Your task to perform on an android device: delete a single message in the gmail app Image 0: 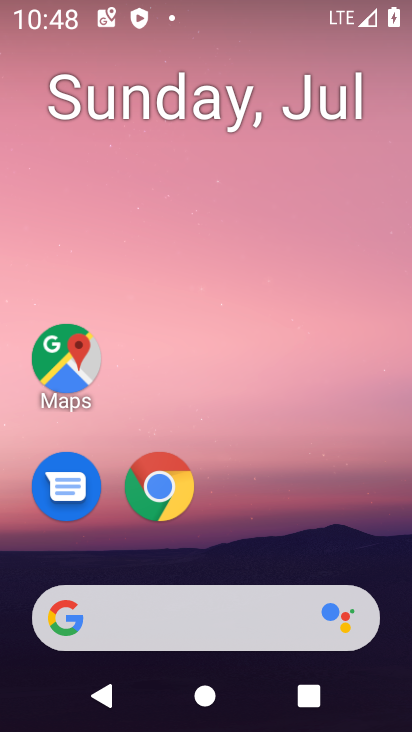
Step 0: press home button
Your task to perform on an android device: delete a single message in the gmail app Image 1: 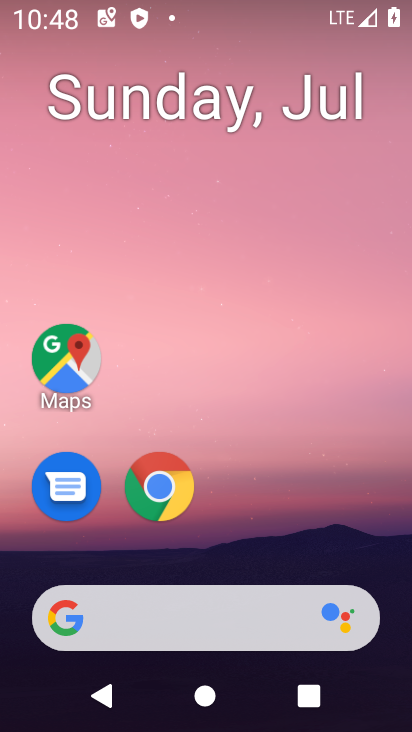
Step 1: drag from (376, 563) to (377, 150)
Your task to perform on an android device: delete a single message in the gmail app Image 2: 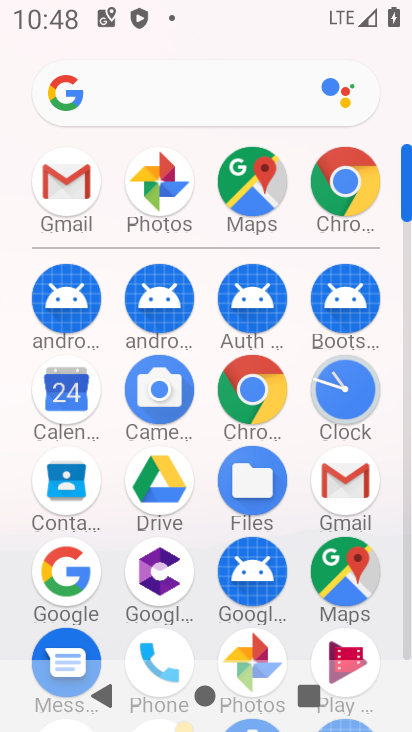
Step 2: click (353, 488)
Your task to perform on an android device: delete a single message in the gmail app Image 3: 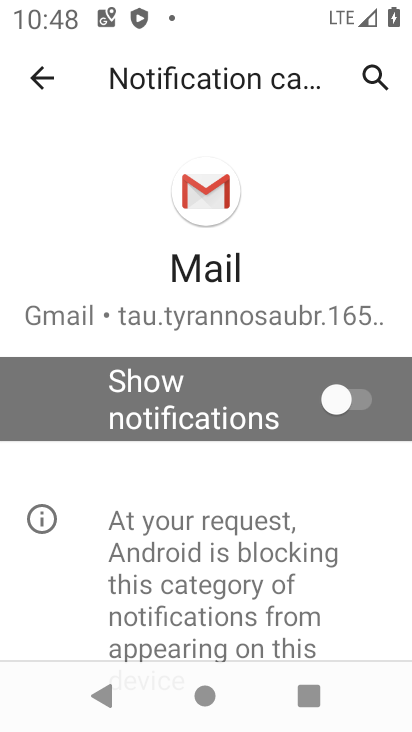
Step 3: press back button
Your task to perform on an android device: delete a single message in the gmail app Image 4: 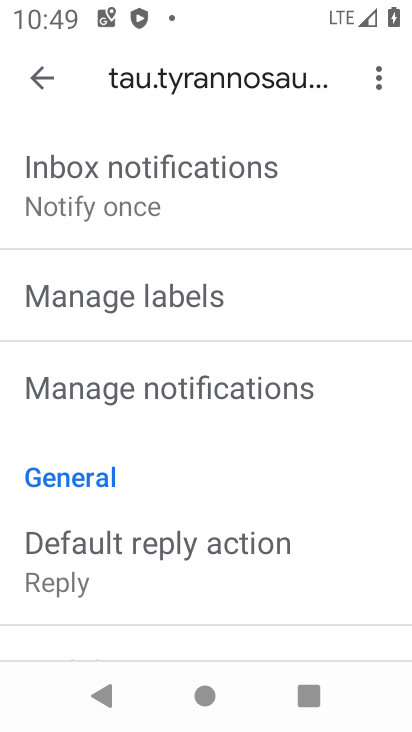
Step 4: press back button
Your task to perform on an android device: delete a single message in the gmail app Image 5: 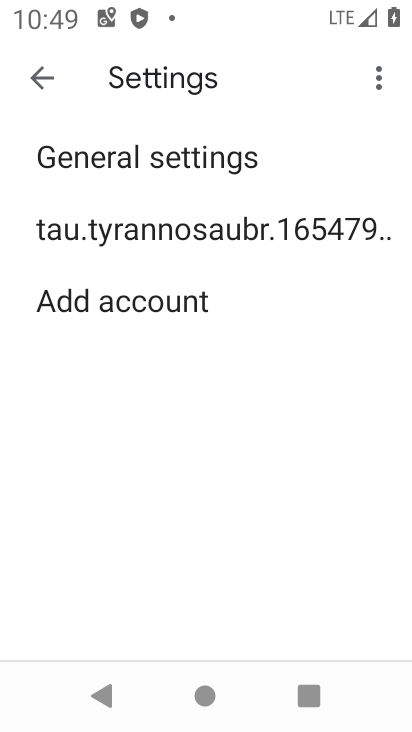
Step 5: press back button
Your task to perform on an android device: delete a single message in the gmail app Image 6: 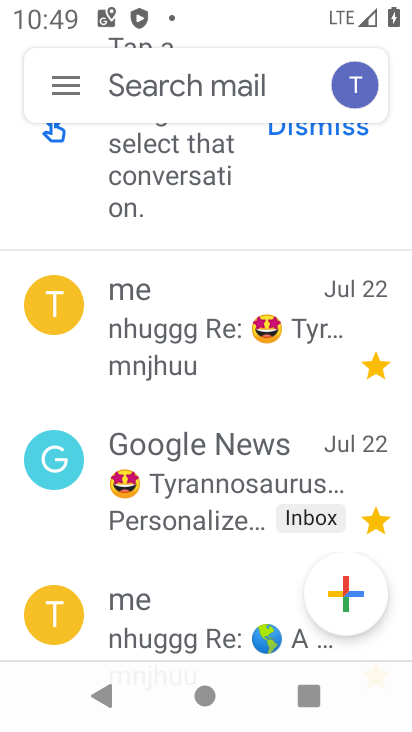
Step 6: click (224, 329)
Your task to perform on an android device: delete a single message in the gmail app Image 7: 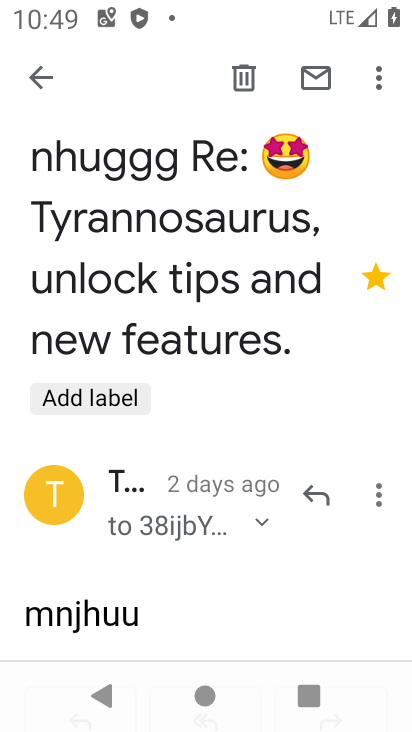
Step 7: click (242, 76)
Your task to perform on an android device: delete a single message in the gmail app Image 8: 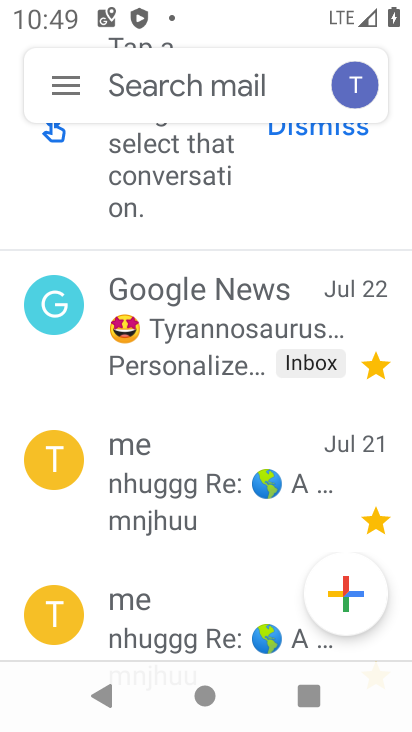
Step 8: task complete